Your task to perform on an android device: Go to Reddit.com Image 0: 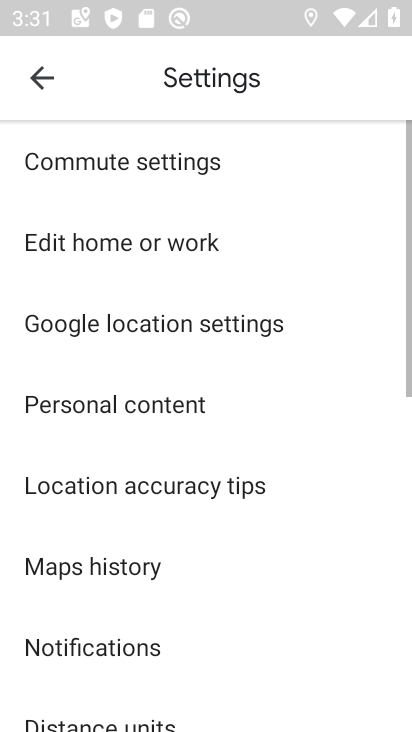
Step 0: press home button
Your task to perform on an android device: Go to Reddit.com Image 1: 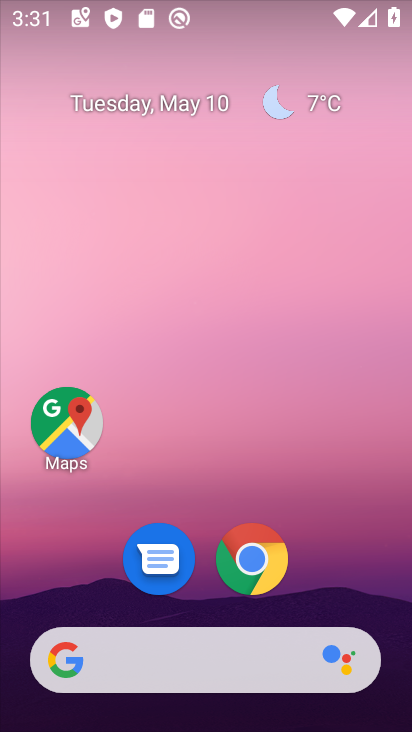
Step 1: click (248, 564)
Your task to perform on an android device: Go to Reddit.com Image 2: 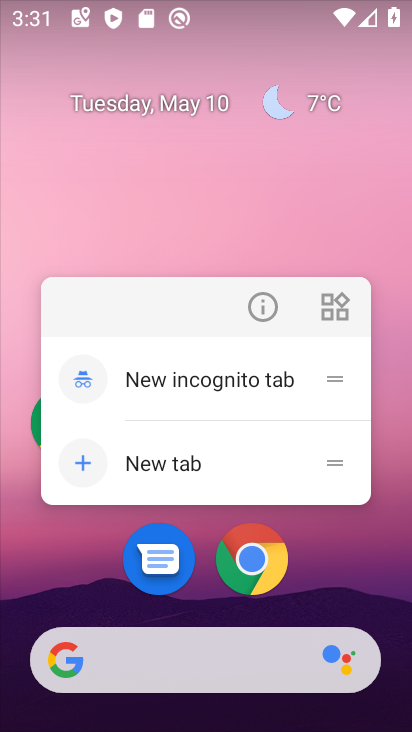
Step 2: click (245, 552)
Your task to perform on an android device: Go to Reddit.com Image 3: 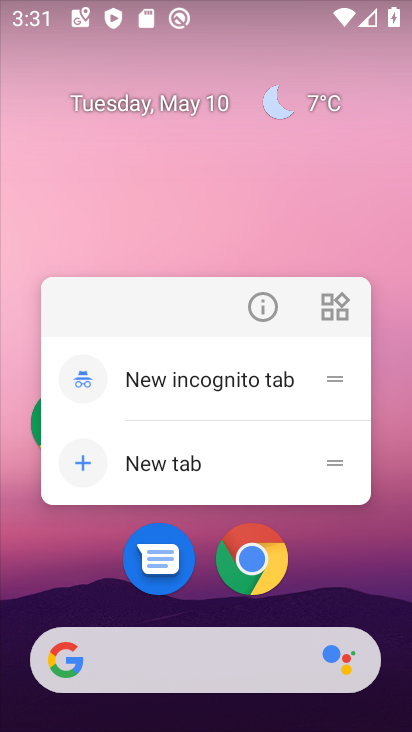
Step 3: click (247, 541)
Your task to perform on an android device: Go to Reddit.com Image 4: 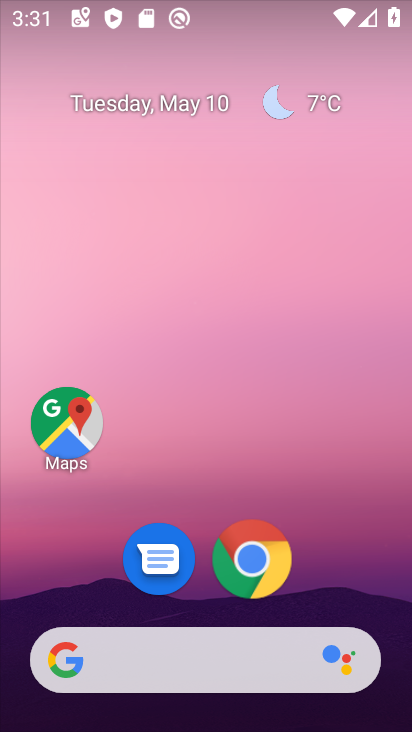
Step 4: click (260, 574)
Your task to perform on an android device: Go to Reddit.com Image 5: 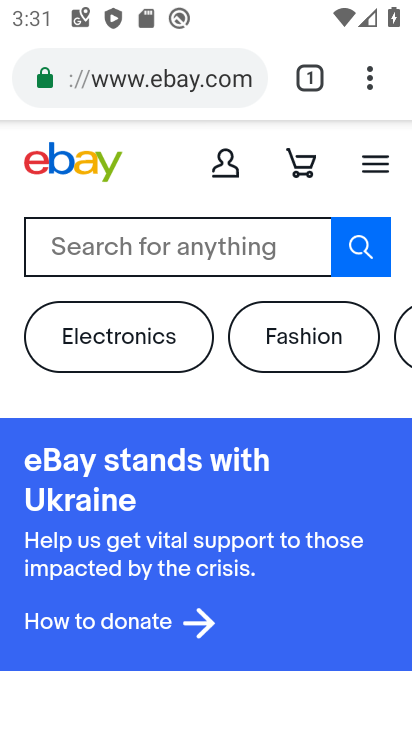
Step 5: click (207, 75)
Your task to perform on an android device: Go to Reddit.com Image 6: 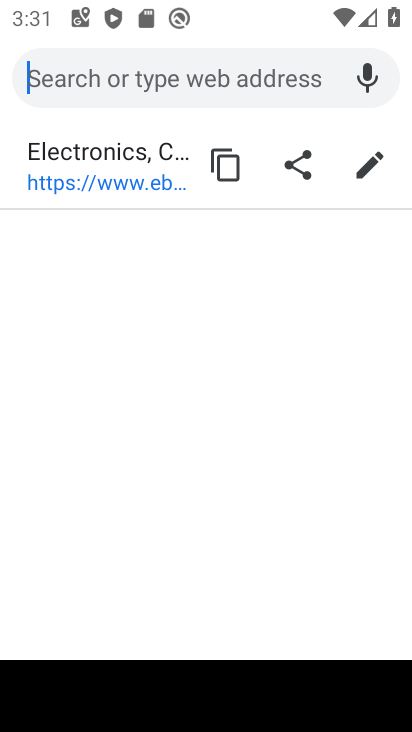
Step 6: type "reddit.com"
Your task to perform on an android device: Go to Reddit.com Image 7: 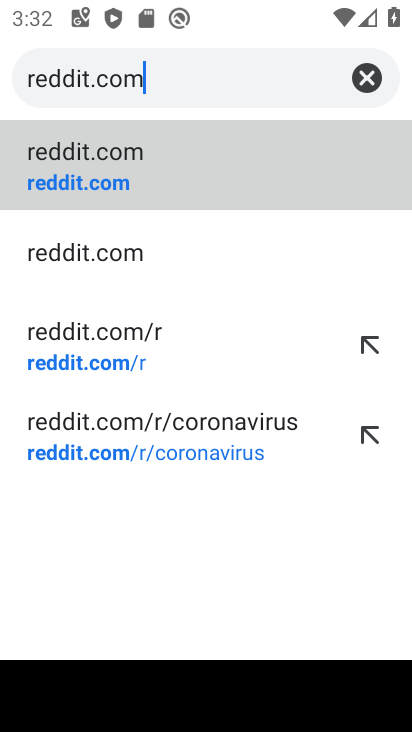
Step 7: click (122, 158)
Your task to perform on an android device: Go to Reddit.com Image 8: 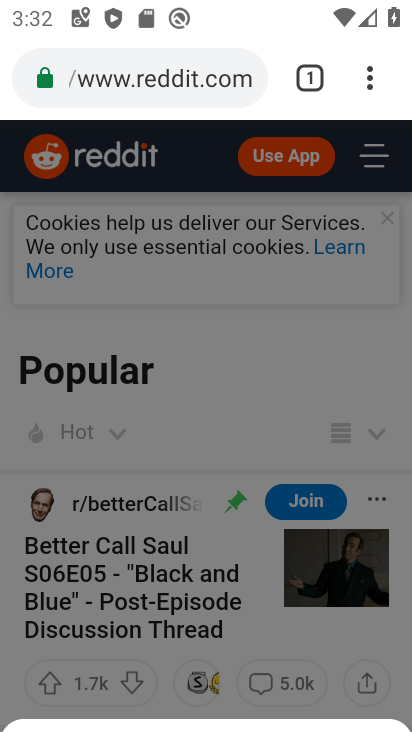
Step 8: task complete